Your task to perform on an android device: add a contact in the contacts app Image 0: 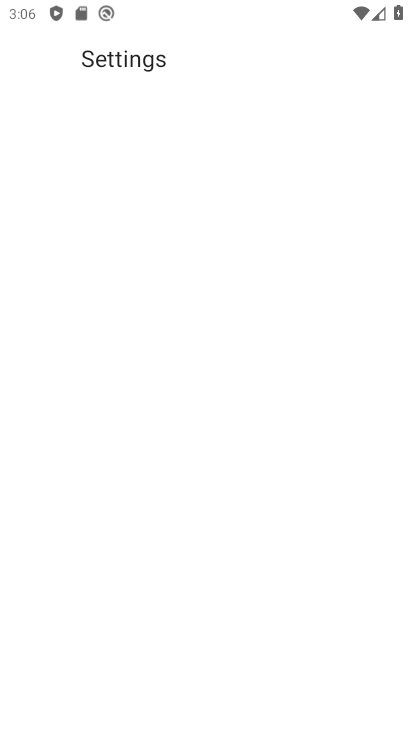
Step 0: drag from (299, 602) to (124, 244)
Your task to perform on an android device: add a contact in the contacts app Image 1: 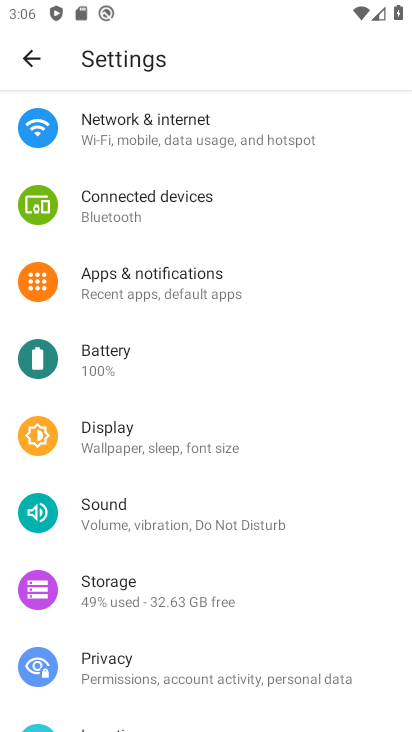
Step 1: press home button
Your task to perform on an android device: add a contact in the contacts app Image 2: 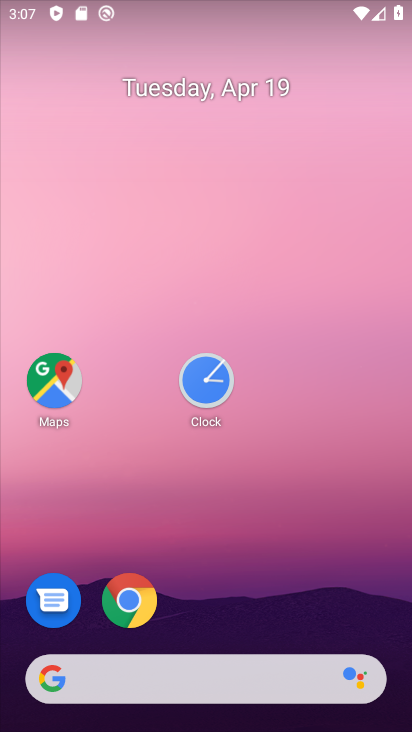
Step 2: drag from (290, 600) to (183, 188)
Your task to perform on an android device: add a contact in the contacts app Image 3: 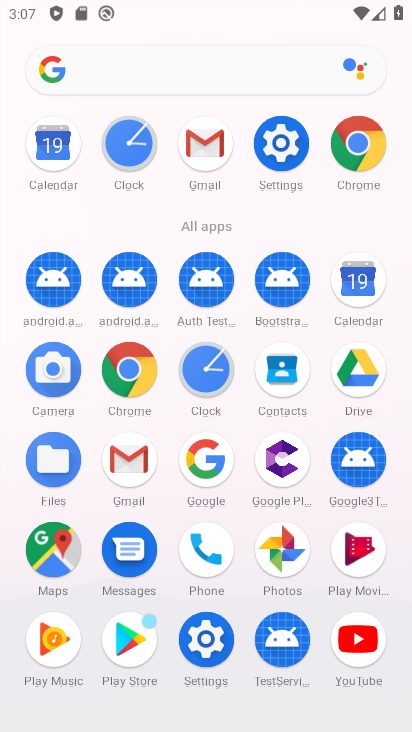
Step 3: click (279, 369)
Your task to perform on an android device: add a contact in the contacts app Image 4: 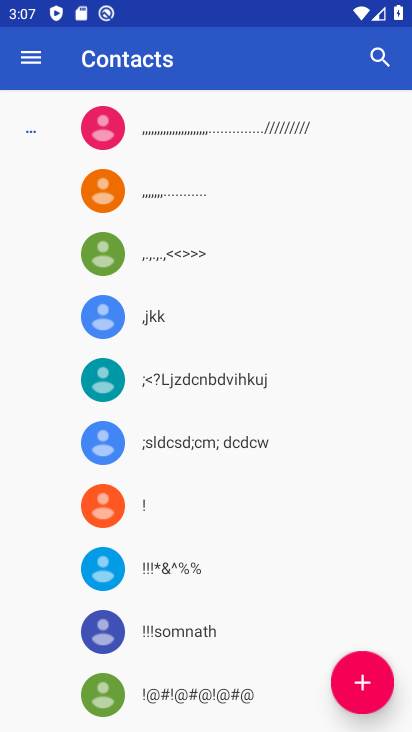
Step 4: click (356, 674)
Your task to perform on an android device: add a contact in the contacts app Image 5: 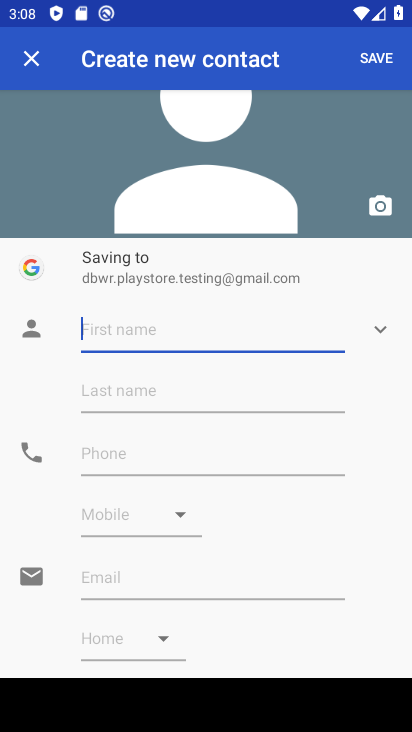
Step 5: type "shubh"
Your task to perform on an android device: add a contact in the contacts app Image 6: 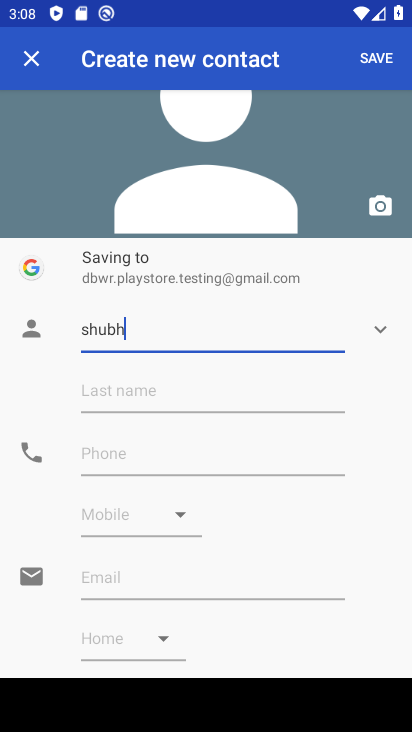
Step 6: click (100, 458)
Your task to perform on an android device: add a contact in the contacts app Image 7: 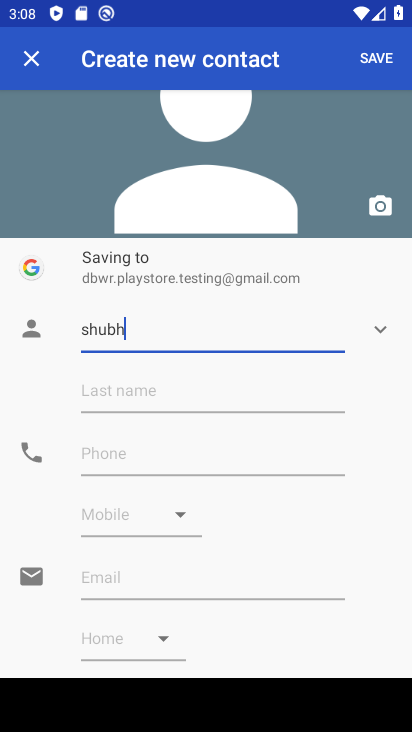
Step 7: click (100, 458)
Your task to perform on an android device: add a contact in the contacts app Image 8: 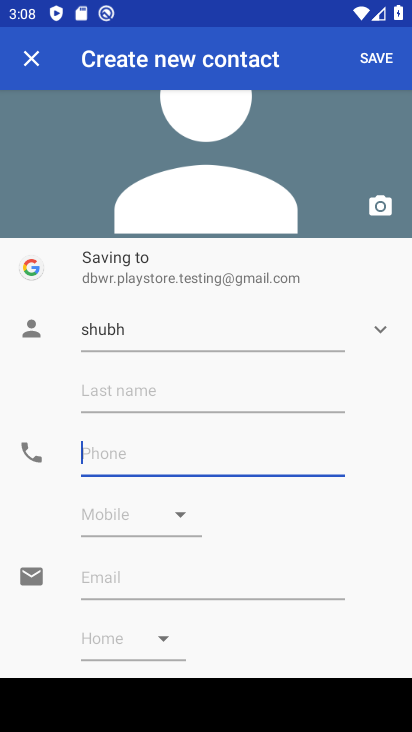
Step 8: click (100, 458)
Your task to perform on an android device: add a contact in the contacts app Image 9: 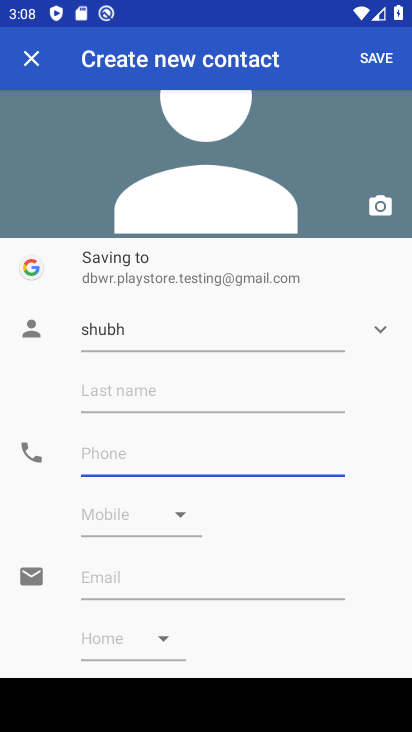
Step 9: click (100, 458)
Your task to perform on an android device: add a contact in the contacts app Image 10: 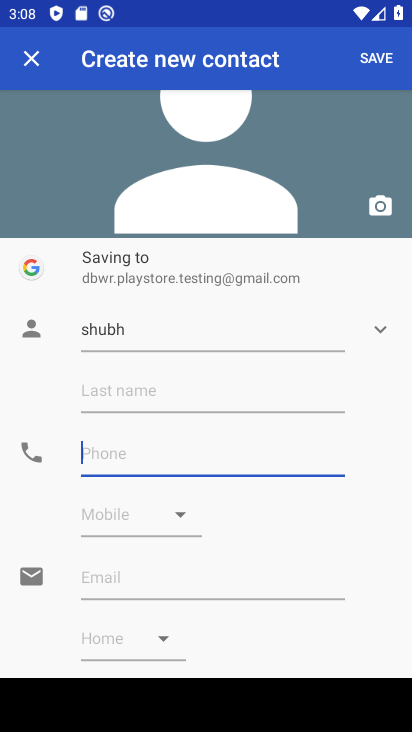
Step 10: type "9789864565"
Your task to perform on an android device: add a contact in the contacts app Image 11: 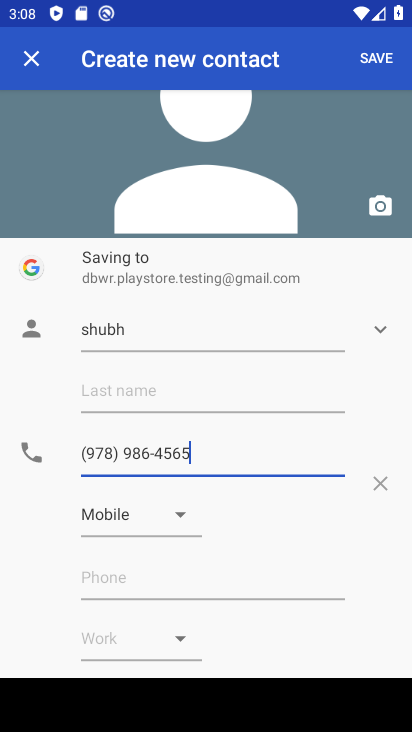
Step 11: click (373, 69)
Your task to perform on an android device: add a contact in the contacts app Image 12: 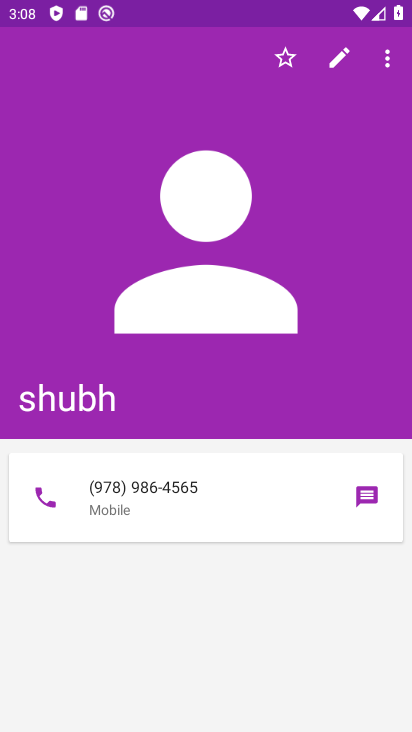
Step 12: task complete